Your task to perform on an android device: check google app version Image 0: 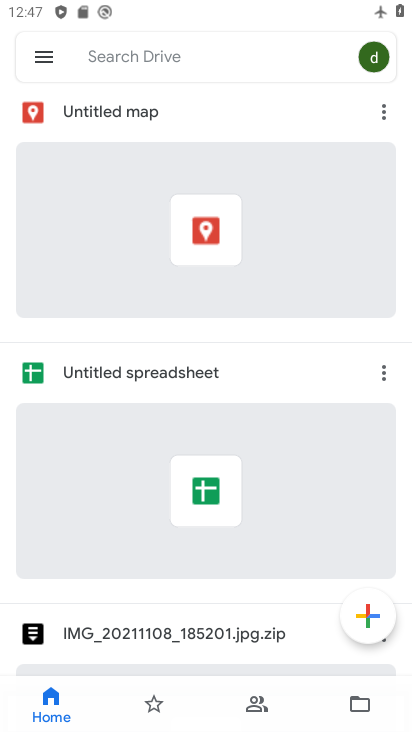
Step 0: press home button
Your task to perform on an android device: check google app version Image 1: 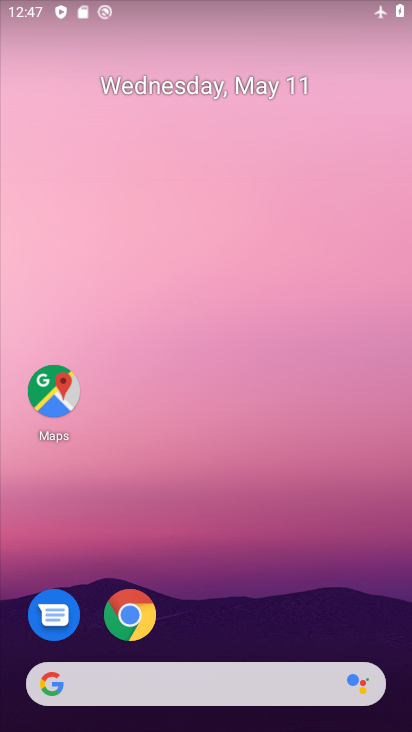
Step 1: drag from (328, 583) to (330, 164)
Your task to perform on an android device: check google app version Image 2: 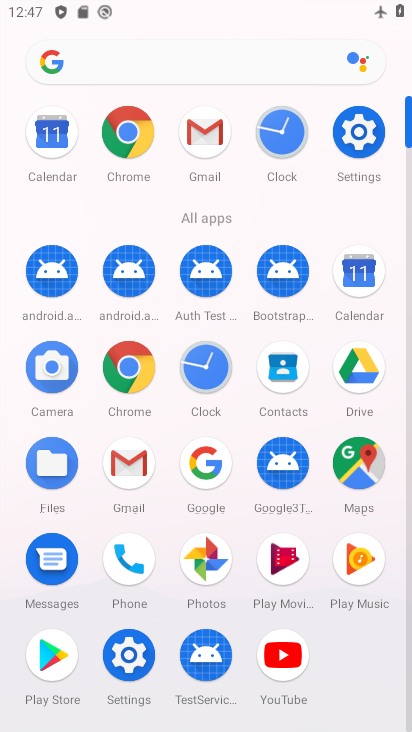
Step 2: click (195, 478)
Your task to perform on an android device: check google app version Image 3: 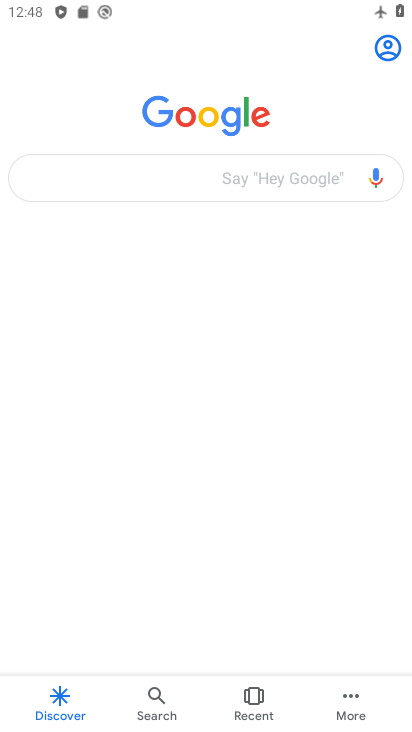
Step 3: click (354, 705)
Your task to perform on an android device: check google app version Image 4: 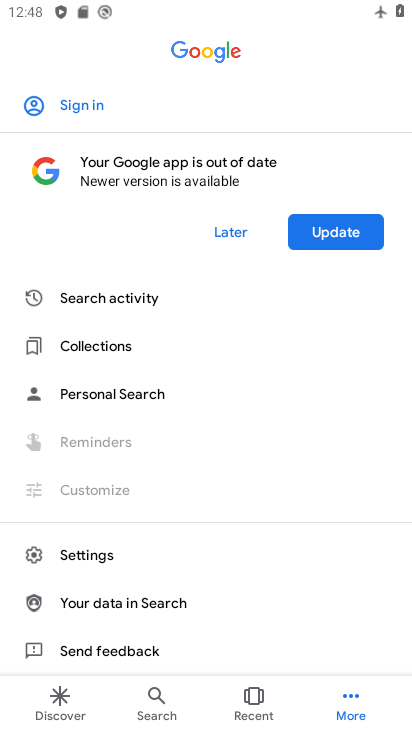
Step 4: click (96, 552)
Your task to perform on an android device: check google app version Image 5: 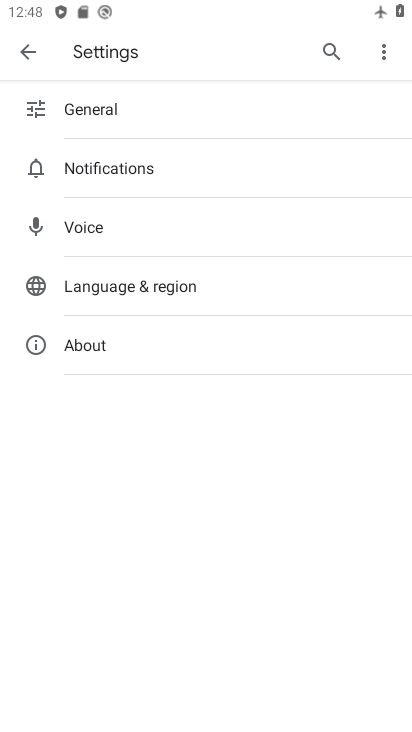
Step 5: click (95, 343)
Your task to perform on an android device: check google app version Image 6: 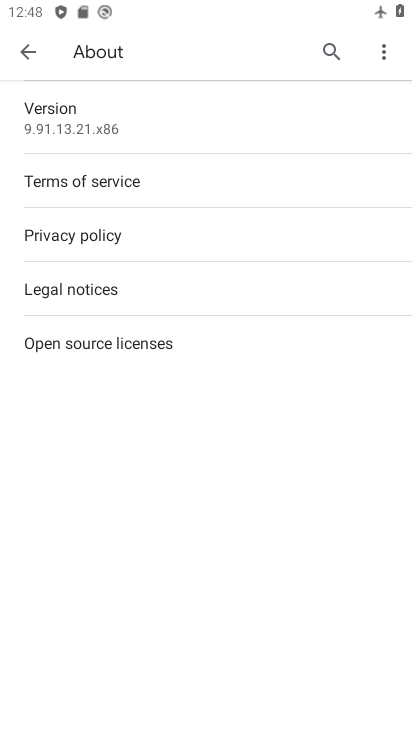
Step 6: task complete